Your task to perform on an android device: Show me popular games on the Play Store Image 0: 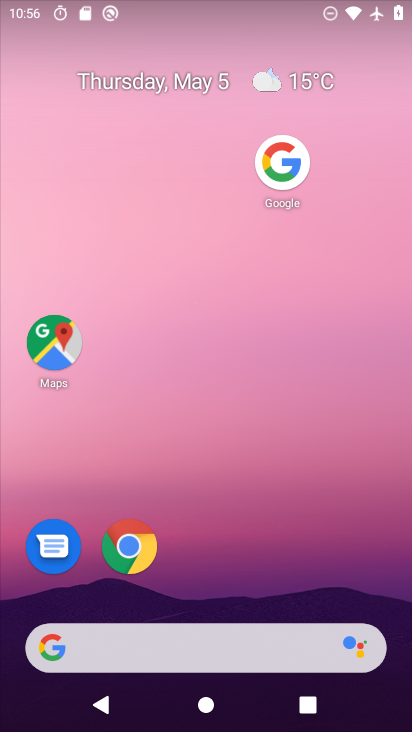
Step 0: drag from (130, 649) to (324, 114)
Your task to perform on an android device: Show me popular games on the Play Store Image 1: 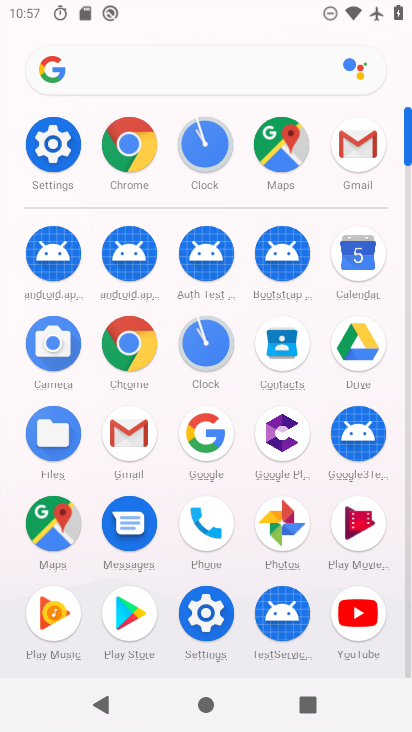
Step 1: click (129, 617)
Your task to perform on an android device: Show me popular games on the Play Store Image 2: 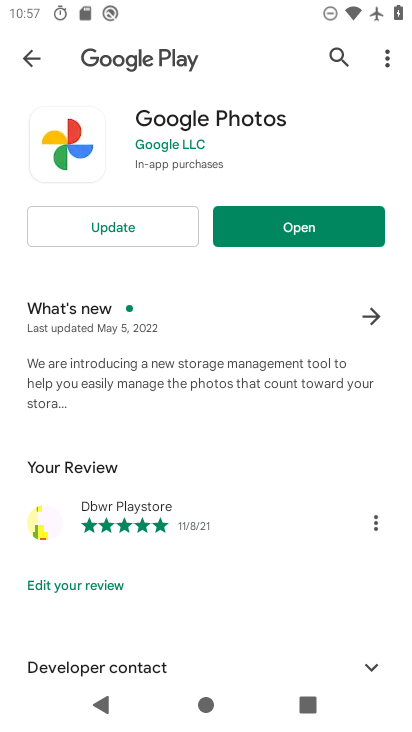
Step 2: click (32, 57)
Your task to perform on an android device: Show me popular games on the Play Store Image 3: 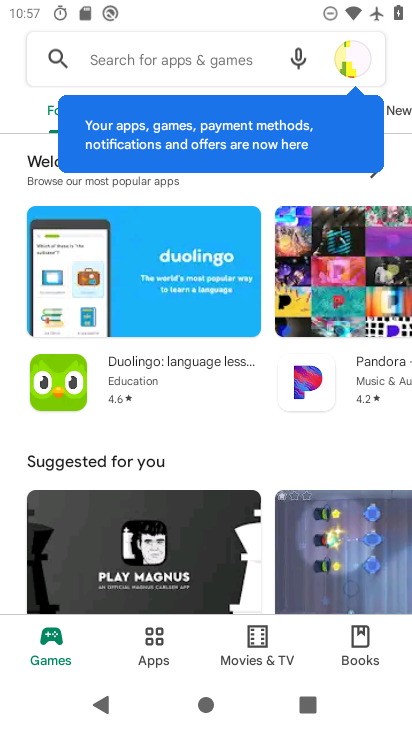
Step 3: drag from (183, 482) to (331, 119)
Your task to perform on an android device: Show me popular games on the Play Store Image 4: 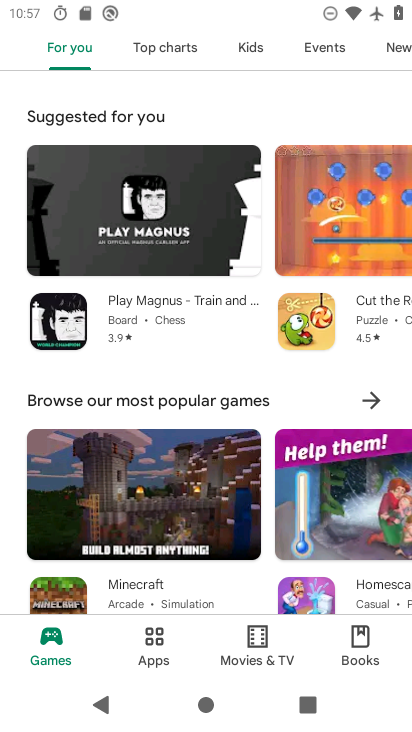
Step 4: click (264, 398)
Your task to perform on an android device: Show me popular games on the Play Store Image 5: 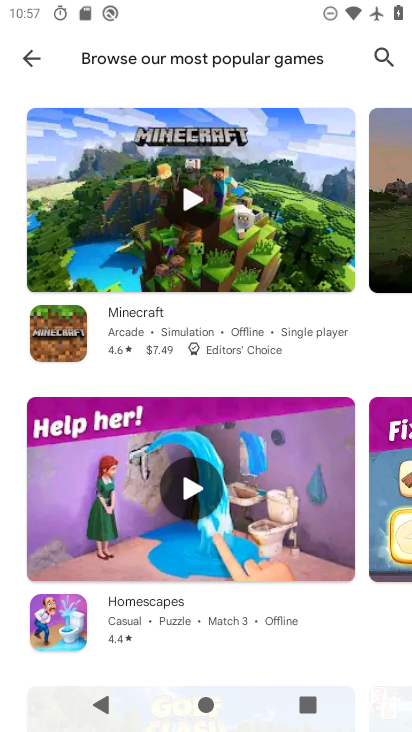
Step 5: task complete